Your task to perform on an android device: Open the phone app and click the voicemail tab. Image 0: 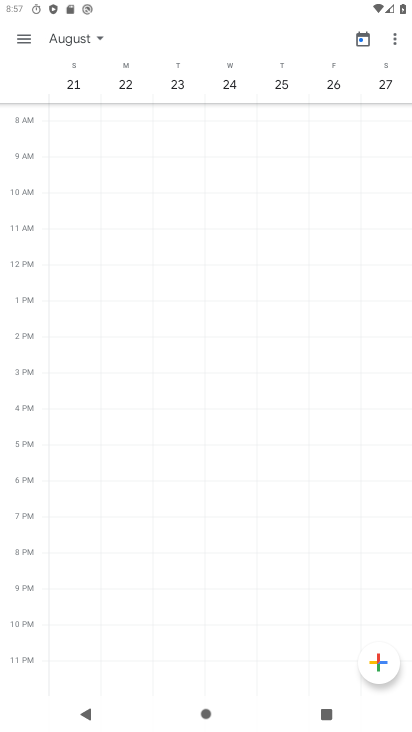
Step 0: press home button
Your task to perform on an android device: Open the phone app and click the voicemail tab. Image 1: 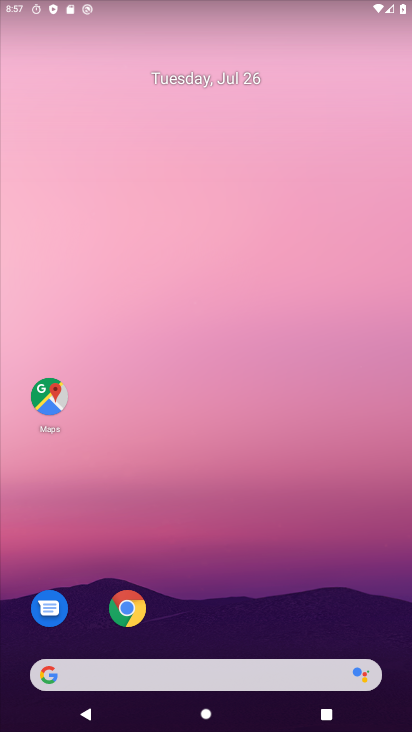
Step 1: drag from (295, 592) to (255, 24)
Your task to perform on an android device: Open the phone app and click the voicemail tab. Image 2: 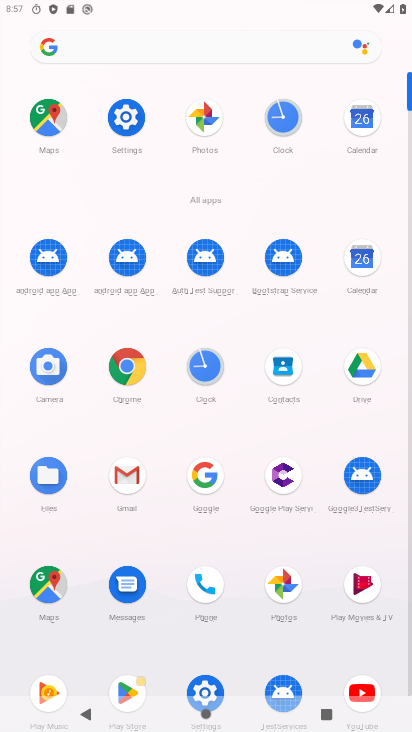
Step 2: click (206, 576)
Your task to perform on an android device: Open the phone app and click the voicemail tab. Image 3: 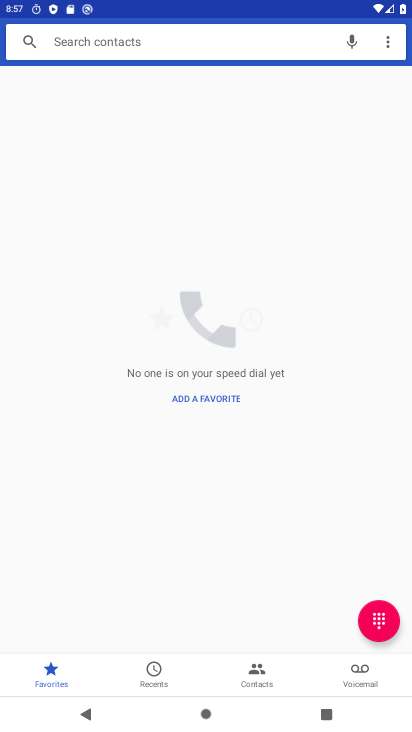
Step 3: click (365, 667)
Your task to perform on an android device: Open the phone app and click the voicemail tab. Image 4: 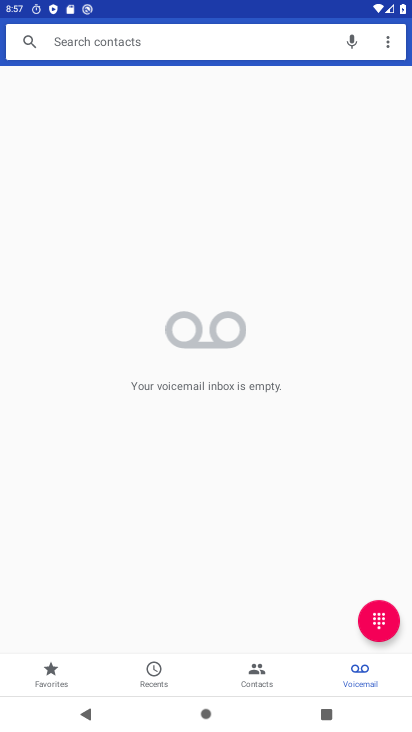
Step 4: task complete